Your task to perform on an android device: toggle priority inbox in the gmail app Image 0: 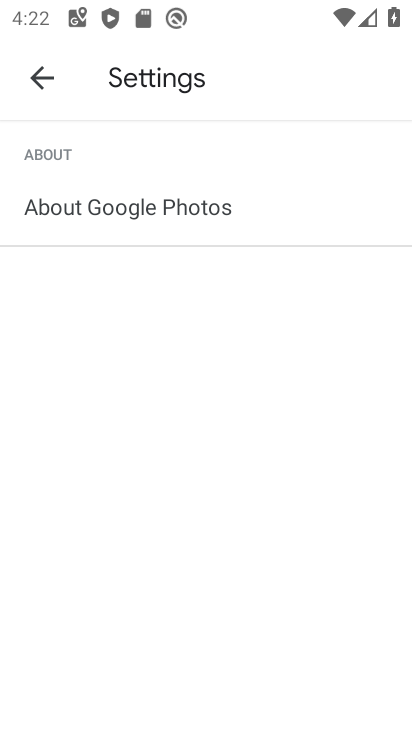
Step 0: press home button
Your task to perform on an android device: toggle priority inbox in the gmail app Image 1: 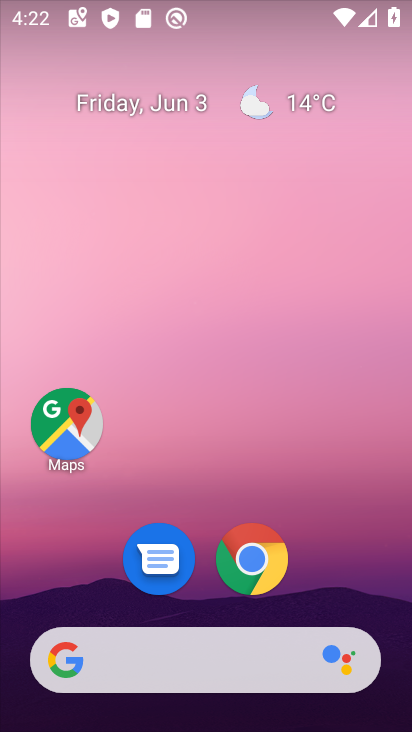
Step 1: drag from (333, 587) to (326, 119)
Your task to perform on an android device: toggle priority inbox in the gmail app Image 2: 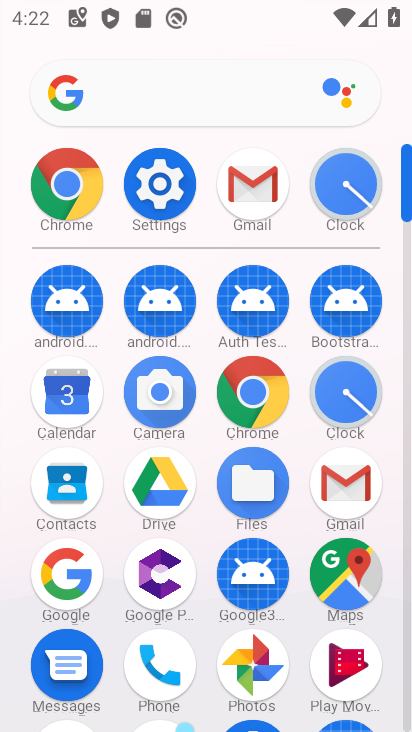
Step 2: click (247, 195)
Your task to perform on an android device: toggle priority inbox in the gmail app Image 3: 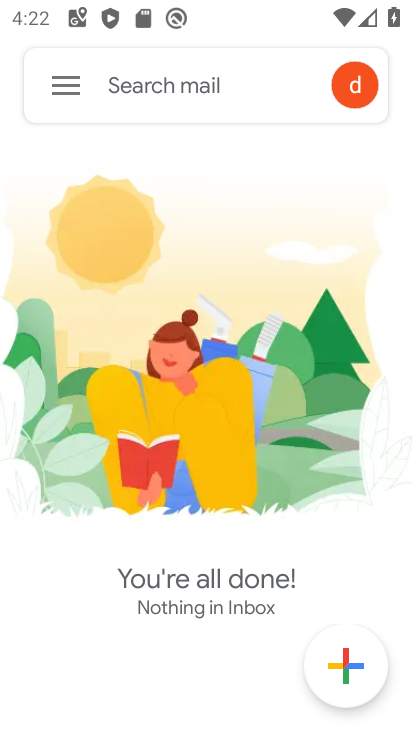
Step 3: click (57, 84)
Your task to perform on an android device: toggle priority inbox in the gmail app Image 4: 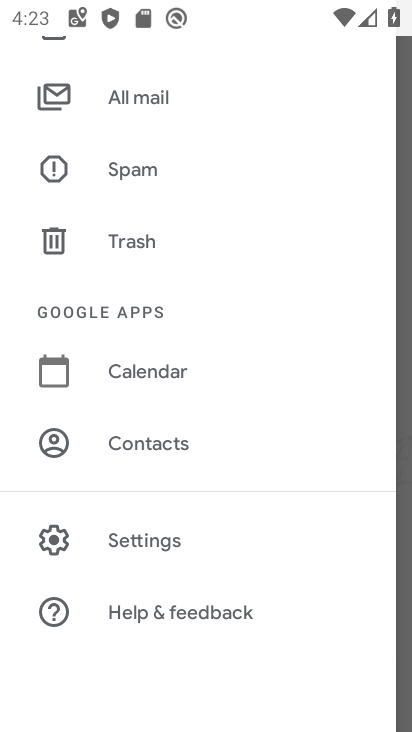
Step 4: click (112, 543)
Your task to perform on an android device: toggle priority inbox in the gmail app Image 5: 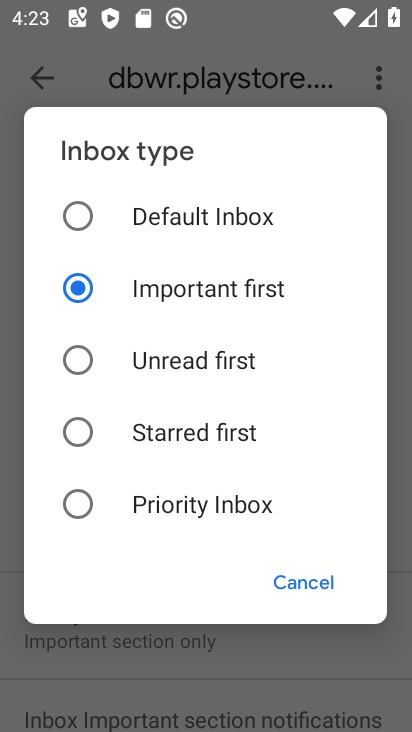
Step 5: click (184, 503)
Your task to perform on an android device: toggle priority inbox in the gmail app Image 6: 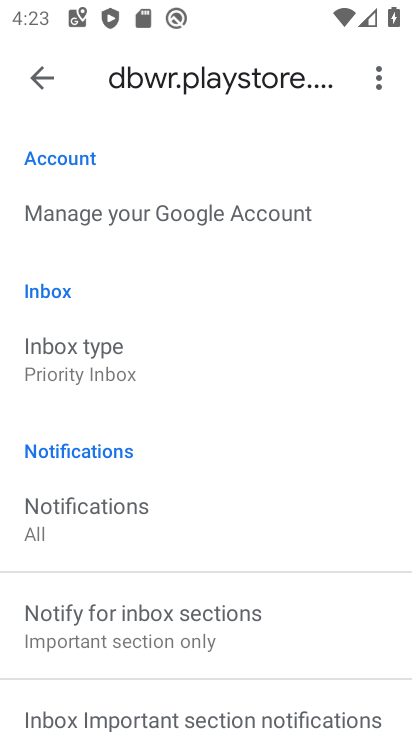
Step 6: task complete